Your task to perform on an android device: turn on priority inbox in the gmail app Image 0: 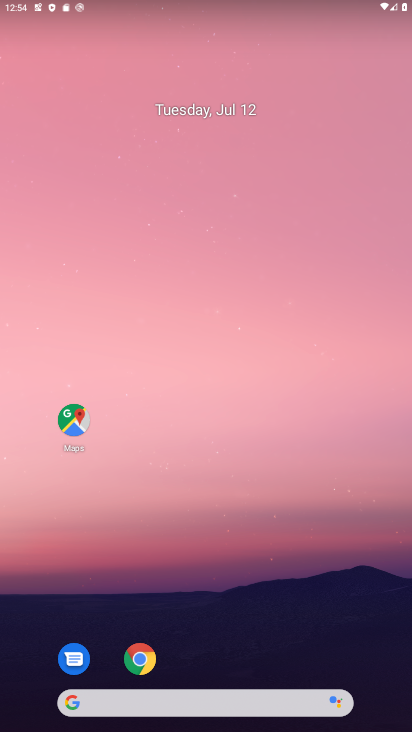
Step 0: drag from (227, 723) to (205, 212)
Your task to perform on an android device: turn on priority inbox in the gmail app Image 1: 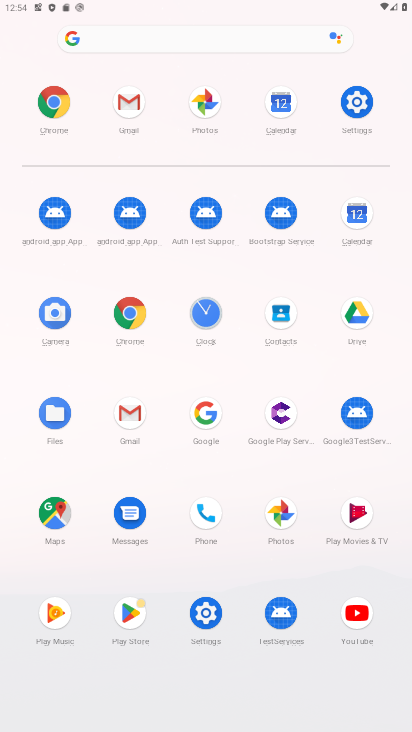
Step 1: click (124, 415)
Your task to perform on an android device: turn on priority inbox in the gmail app Image 2: 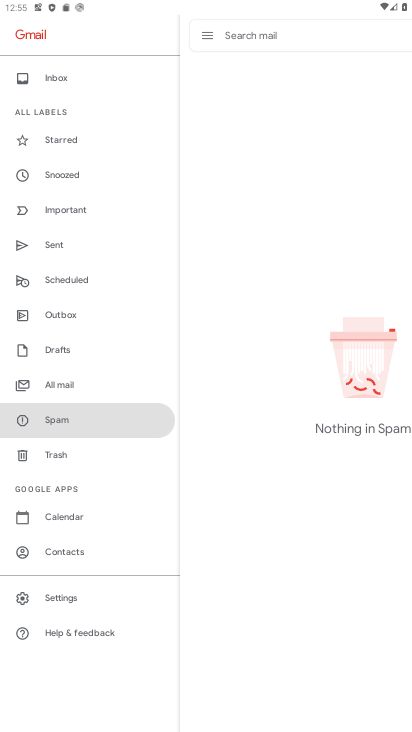
Step 2: click (52, 596)
Your task to perform on an android device: turn on priority inbox in the gmail app Image 3: 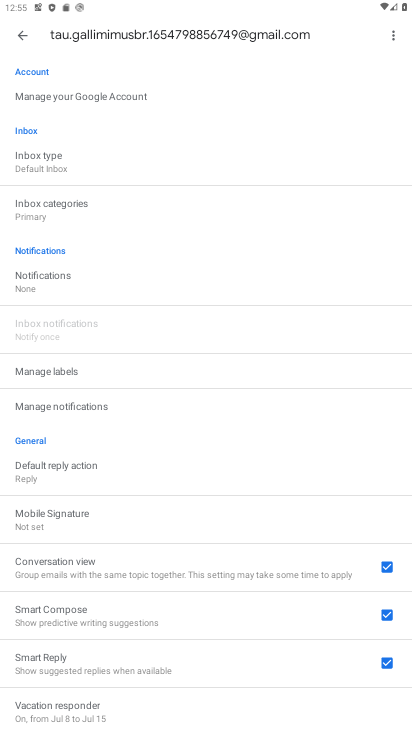
Step 3: click (43, 168)
Your task to perform on an android device: turn on priority inbox in the gmail app Image 4: 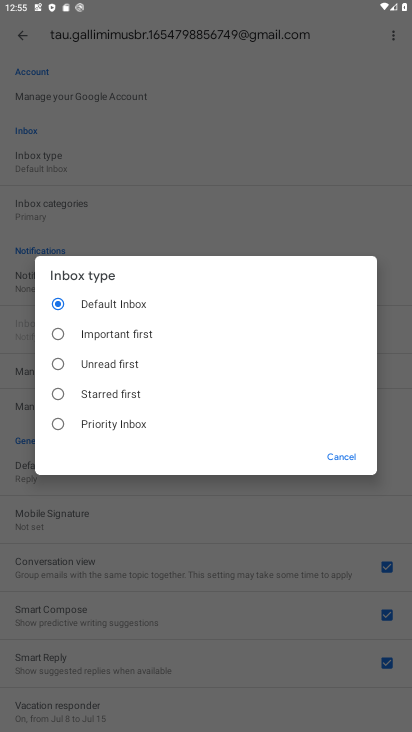
Step 4: click (60, 426)
Your task to perform on an android device: turn on priority inbox in the gmail app Image 5: 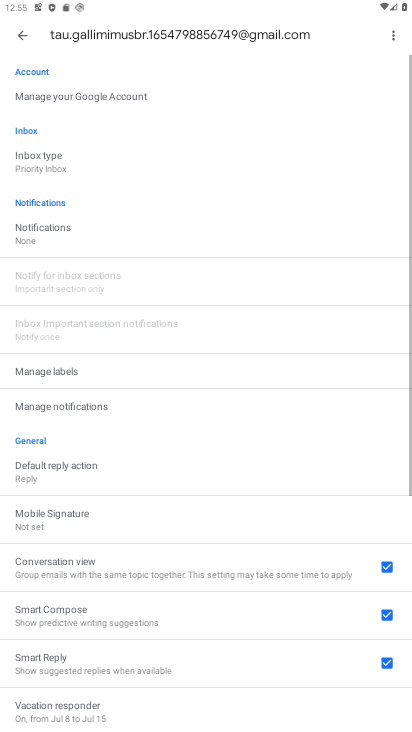
Step 5: task complete